Your task to perform on an android device: make emails show in primary in the gmail app Image 0: 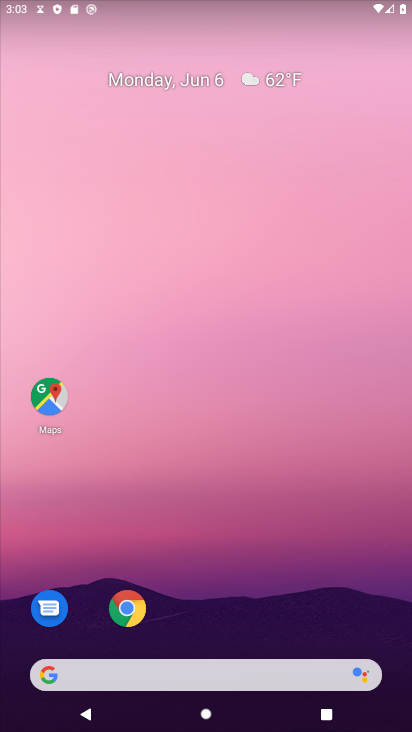
Step 0: drag from (250, 630) to (206, 36)
Your task to perform on an android device: make emails show in primary in the gmail app Image 1: 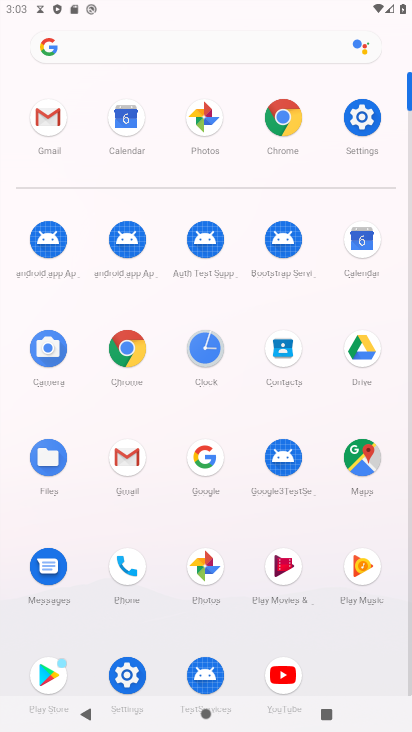
Step 1: click (132, 458)
Your task to perform on an android device: make emails show in primary in the gmail app Image 2: 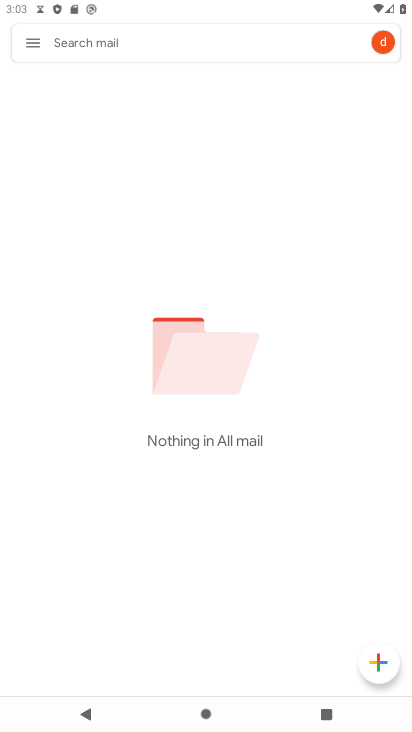
Step 2: click (30, 49)
Your task to perform on an android device: make emails show in primary in the gmail app Image 3: 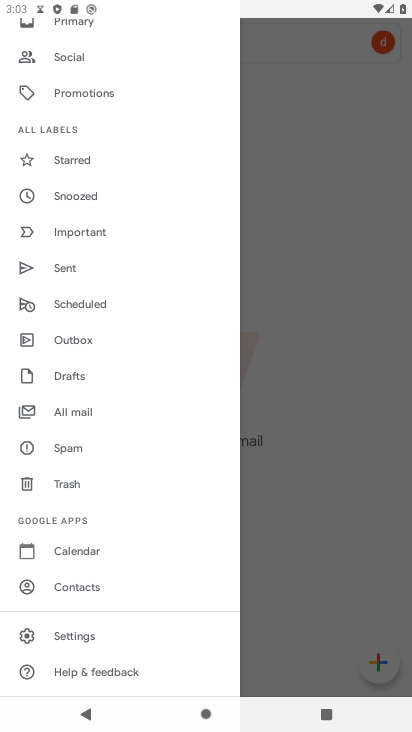
Step 3: click (106, 640)
Your task to perform on an android device: make emails show in primary in the gmail app Image 4: 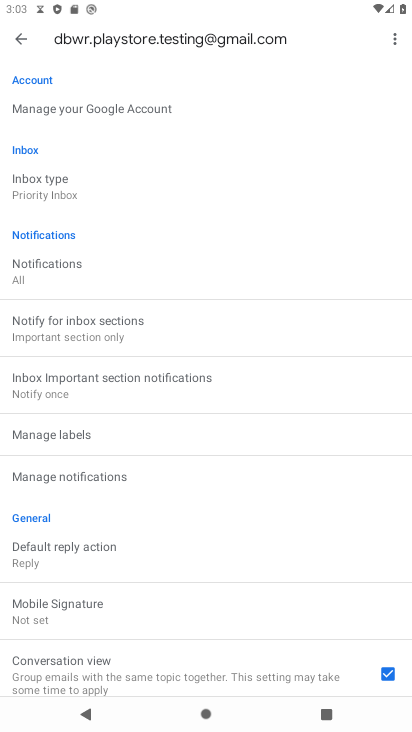
Step 4: click (49, 184)
Your task to perform on an android device: make emails show in primary in the gmail app Image 5: 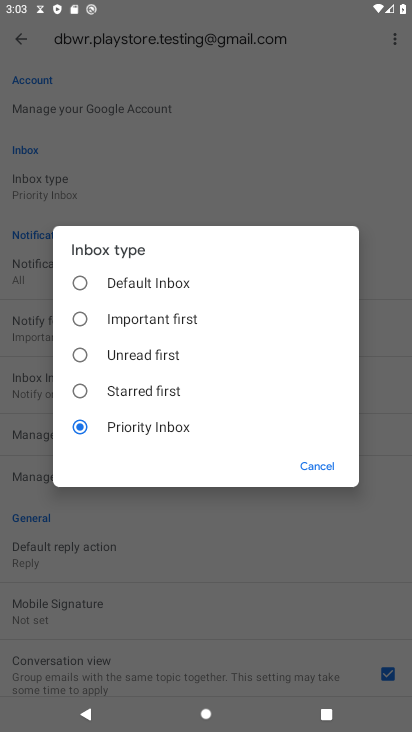
Step 5: click (151, 282)
Your task to perform on an android device: make emails show in primary in the gmail app Image 6: 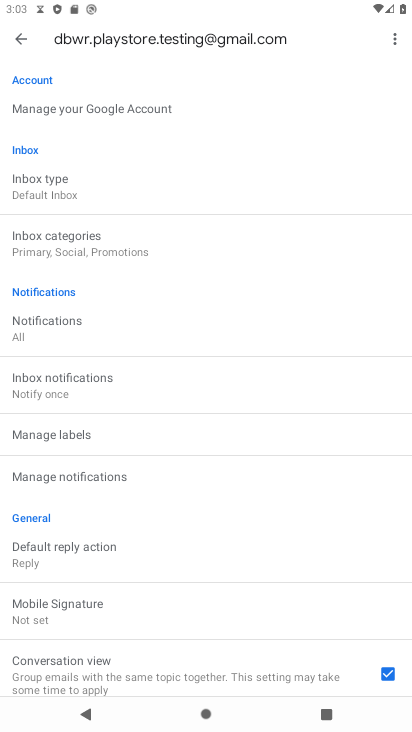
Step 6: task complete